Your task to perform on an android device: check battery use Image 0: 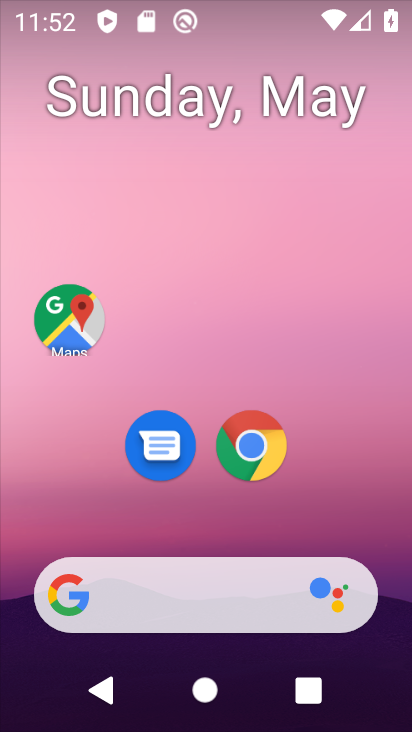
Step 0: drag from (315, 544) to (330, 12)
Your task to perform on an android device: check battery use Image 1: 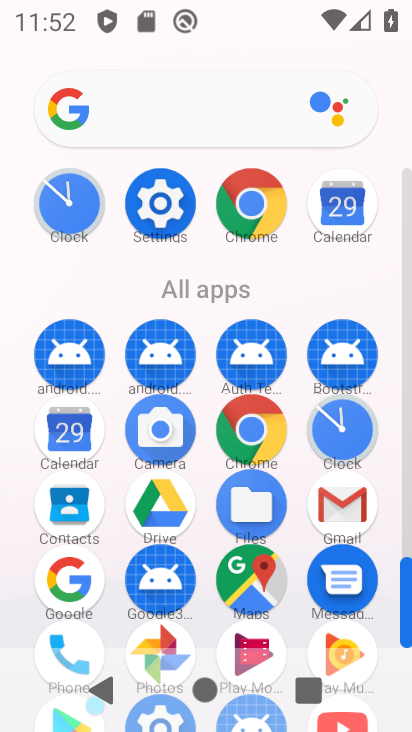
Step 1: click (161, 208)
Your task to perform on an android device: check battery use Image 2: 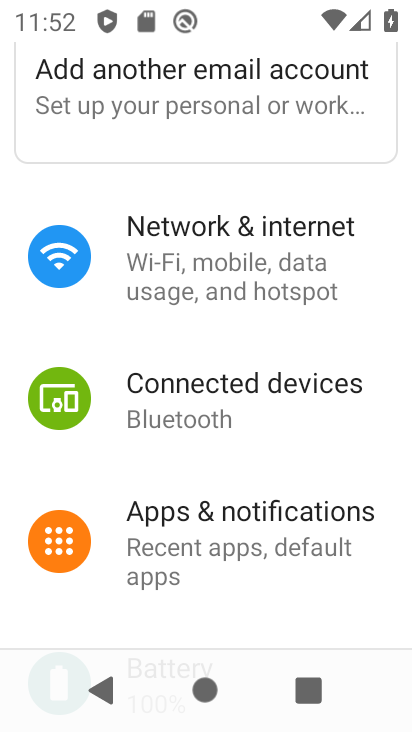
Step 2: drag from (250, 550) to (323, 118)
Your task to perform on an android device: check battery use Image 3: 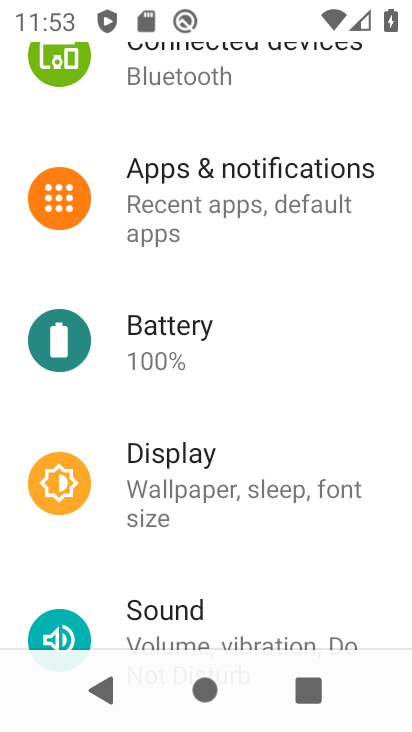
Step 3: click (151, 324)
Your task to perform on an android device: check battery use Image 4: 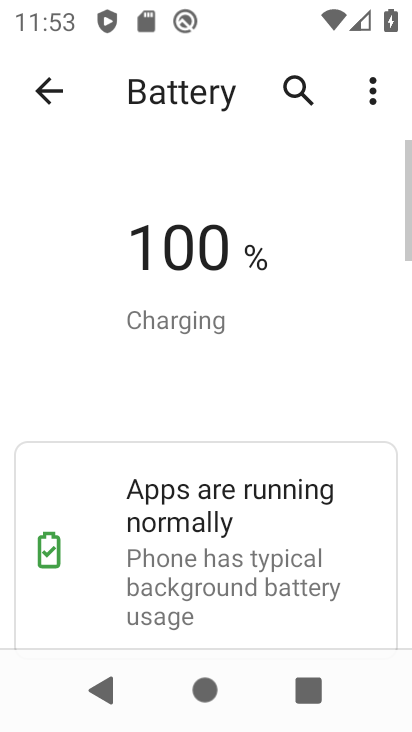
Step 4: task complete